Your task to perform on an android device: Go to network settings Image 0: 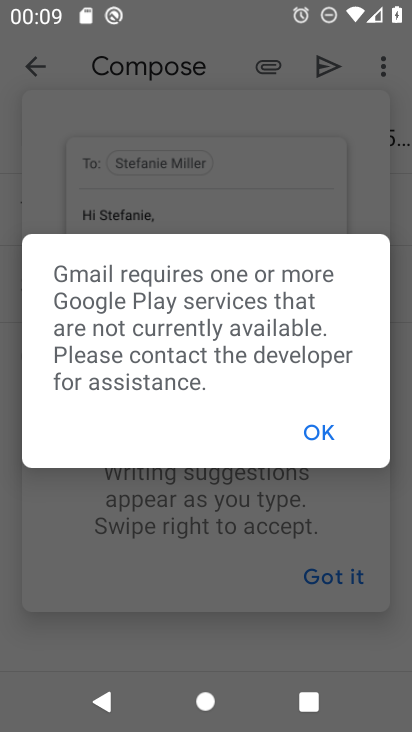
Step 0: press home button
Your task to perform on an android device: Go to network settings Image 1: 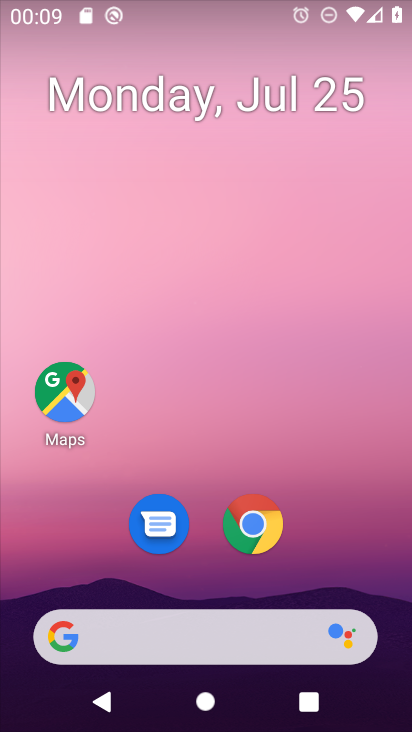
Step 1: drag from (221, 613) to (284, 112)
Your task to perform on an android device: Go to network settings Image 2: 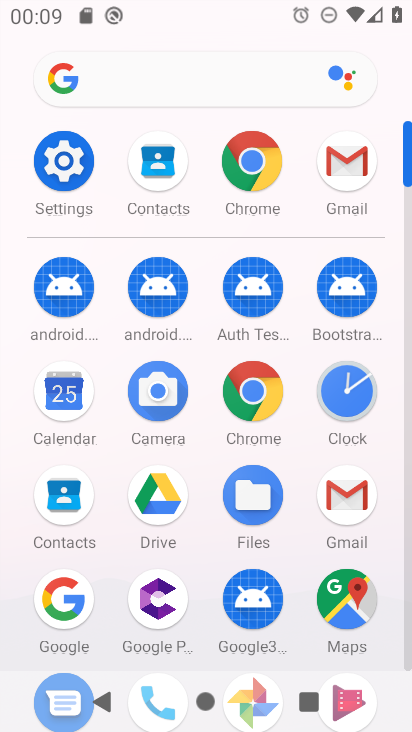
Step 2: click (57, 167)
Your task to perform on an android device: Go to network settings Image 3: 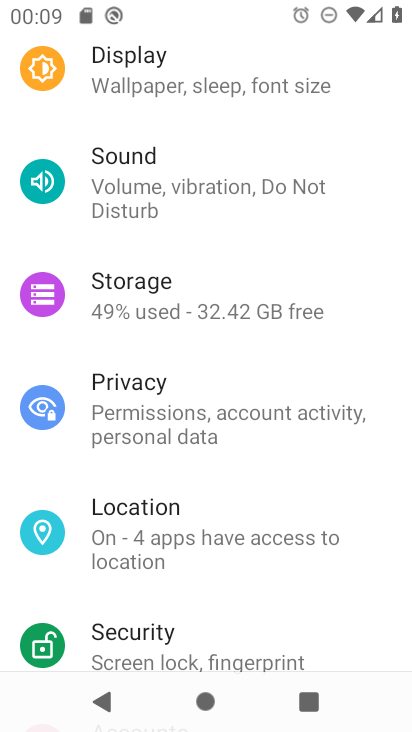
Step 3: drag from (270, 141) to (264, 537)
Your task to perform on an android device: Go to network settings Image 4: 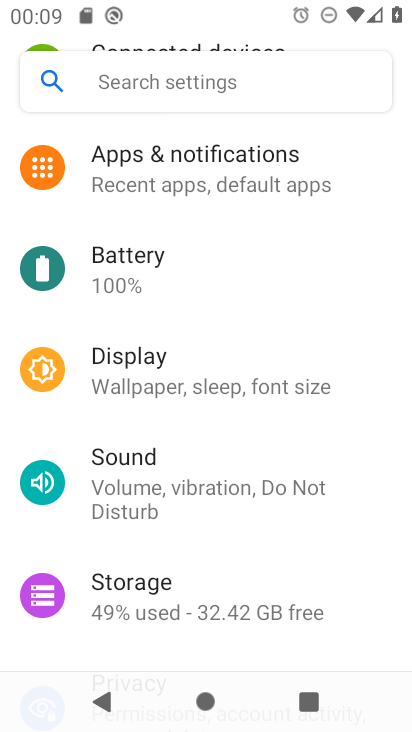
Step 4: drag from (276, 296) to (266, 628)
Your task to perform on an android device: Go to network settings Image 5: 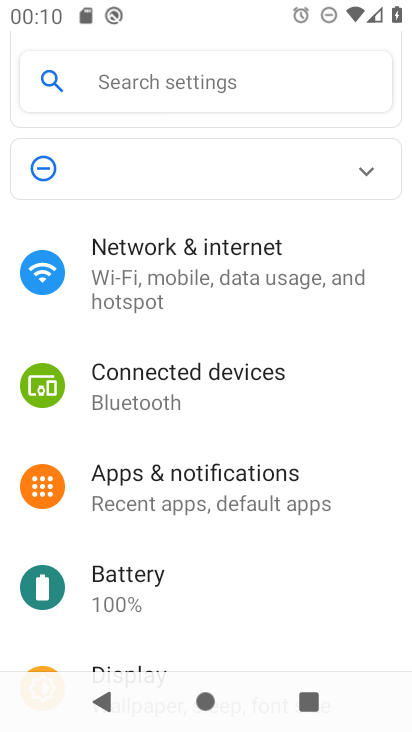
Step 5: click (206, 264)
Your task to perform on an android device: Go to network settings Image 6: 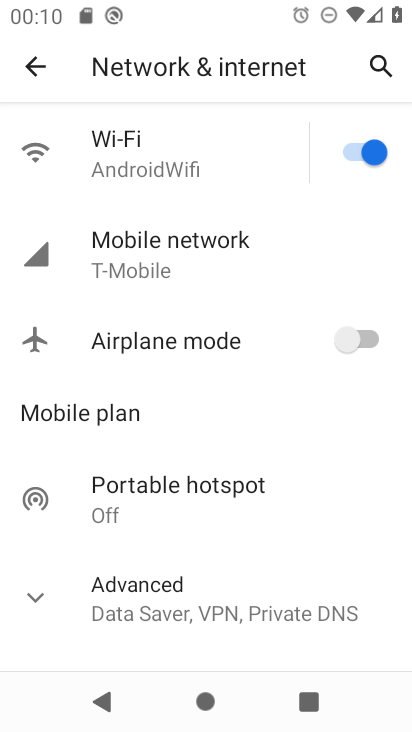
Step 6: task complete